Your task to perform on an android device: Open calendar and show me the fourth week of next month Image 0: 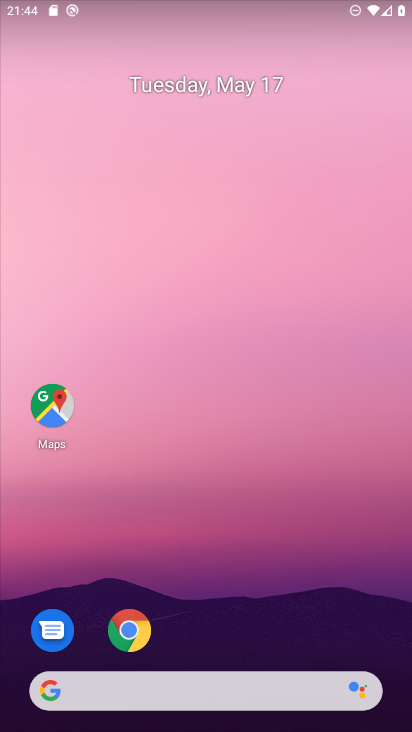
Step 0: drag from (361, 627) to (380, 166)
Your task to perform on an android device: Open calendar and show me the fourth week of next month Image 1: 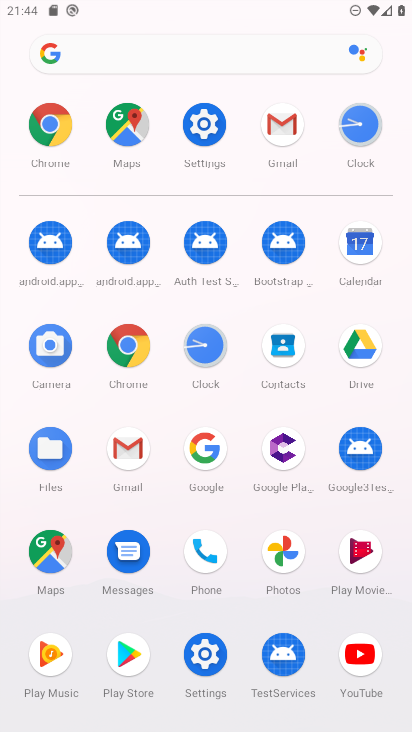
Step 1: click (363, 255)
Your task to perform on an android device: Open calendar and show me the fourth week of next month Image 2: 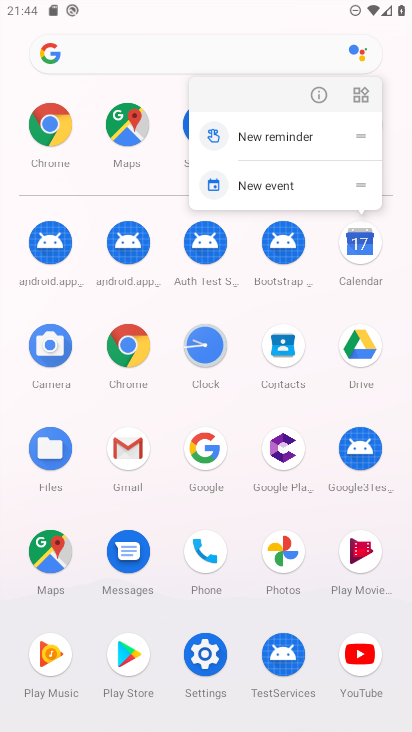
Step 2: click (363, 255)
Your task to perform on an android device: Open calendar and show me the fourth week of next month Image 3: 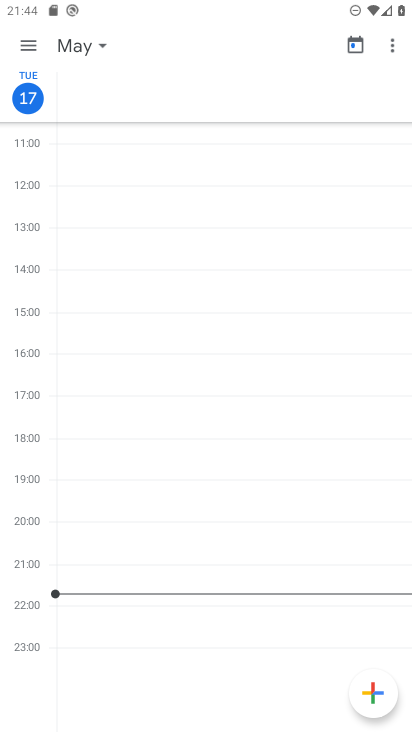
Step 3: click (103, 42)
Your task to perform on an android device: Open calendar and show me the fourth week of next month Image 4: 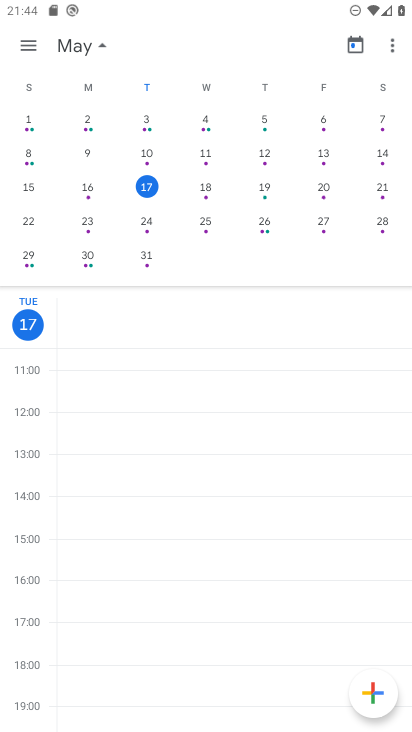
Step 4: drag from (366, 99) to (1, 97)
Your task to perform on an android device: Open calendar and show me the fourth week of next month Image 5: 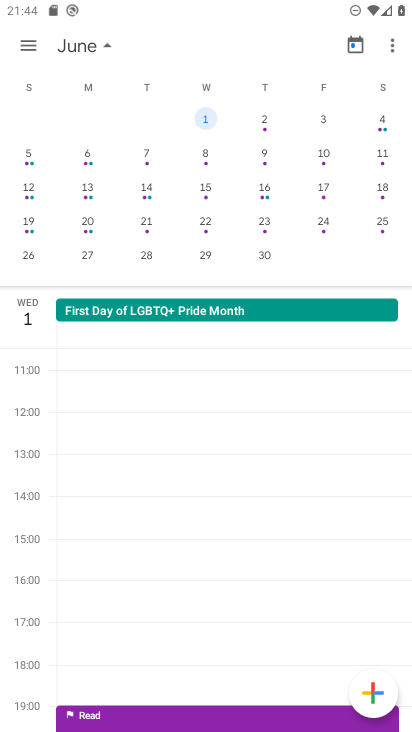
Step 5: click (209, 223)
Your task to perform on an android device: Open calendar and show me the fourth week of next month Image 6: 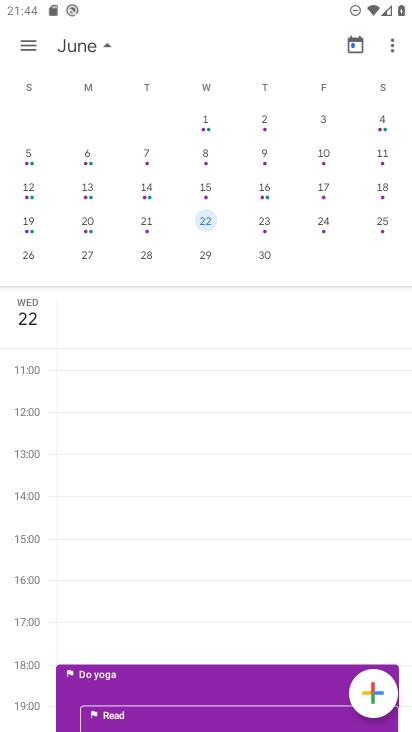
Step 6: task complete